Your task to perform on an android device: Open display settings Image 0: 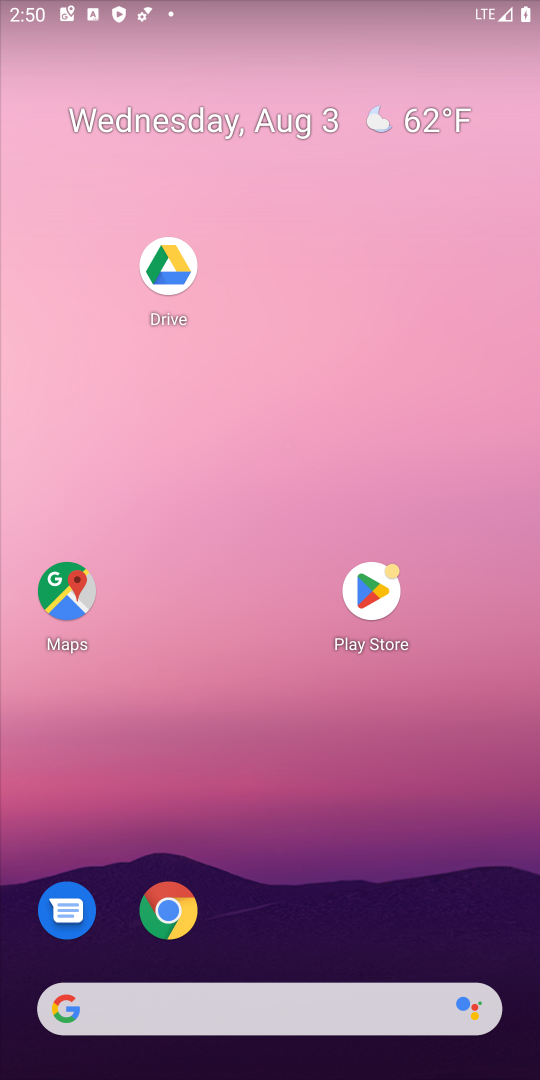
Step 0: drag from (302, 813) to (390, 1)
Your task to perform on an android device: Open display settings Image 1: 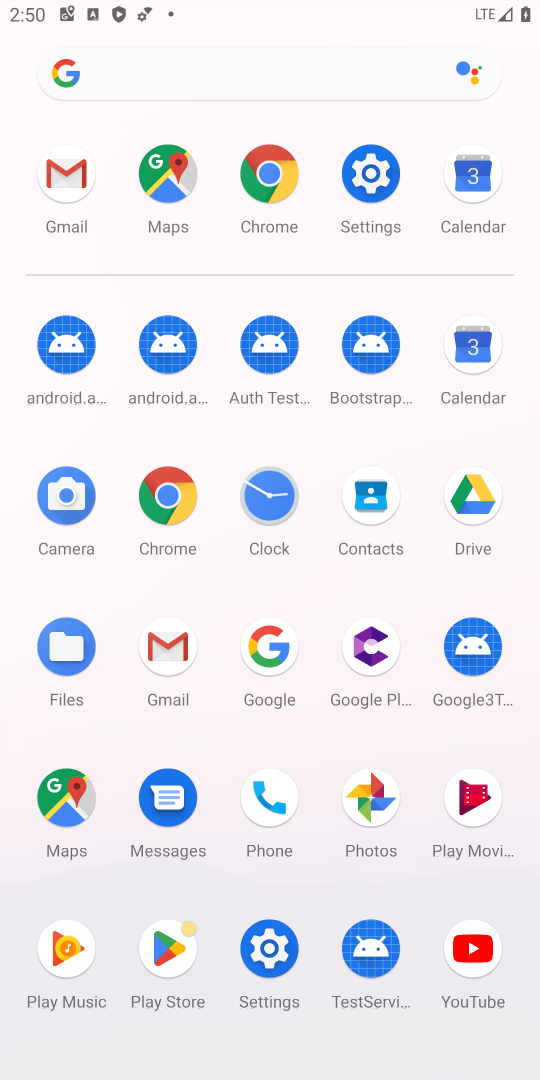
Step 1: click (382, 170)
Your task to perform on an android device: Open display settings Image 2: 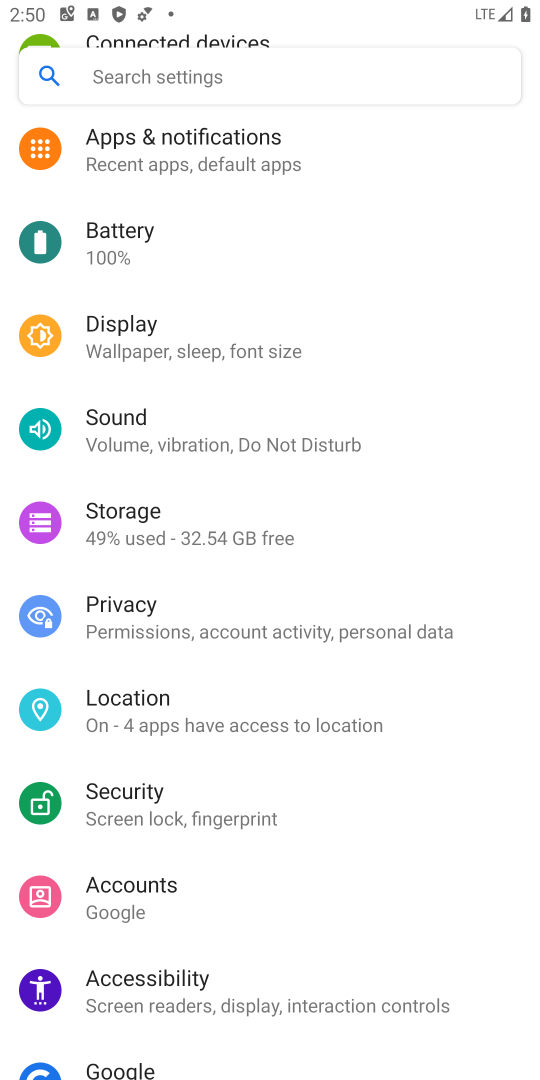
Step 2: click (161, 338)
Your task to perform on an android device: Open display settings Image 3: 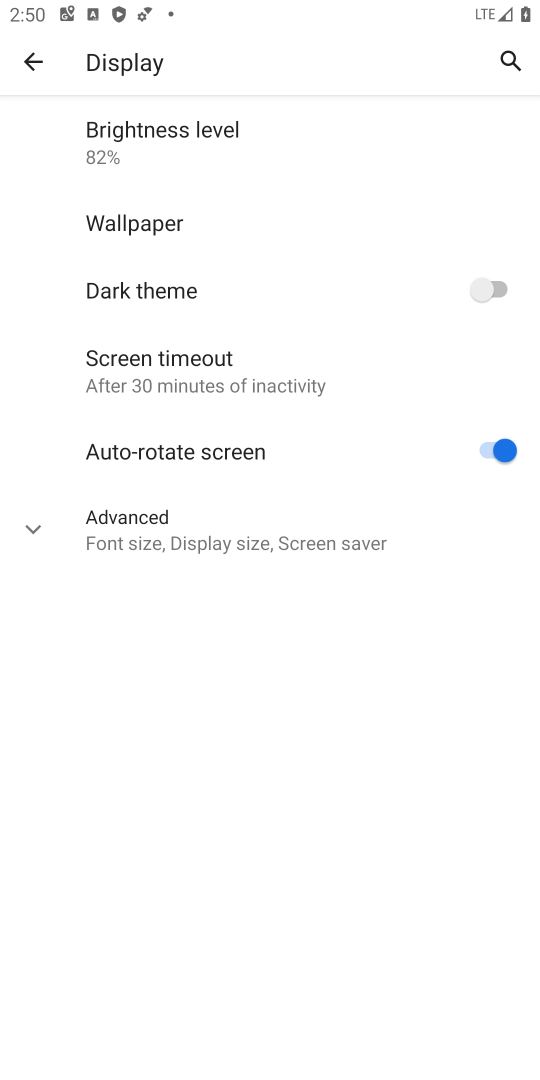
Step 3: task complete